Your task to perform on an android device: turn off location Image 0: 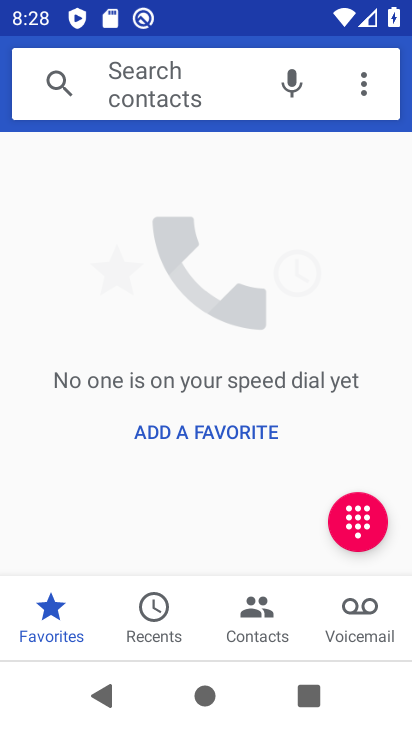
Step 0: press home button
Your task to perform on an android device: turn off location Image 1: 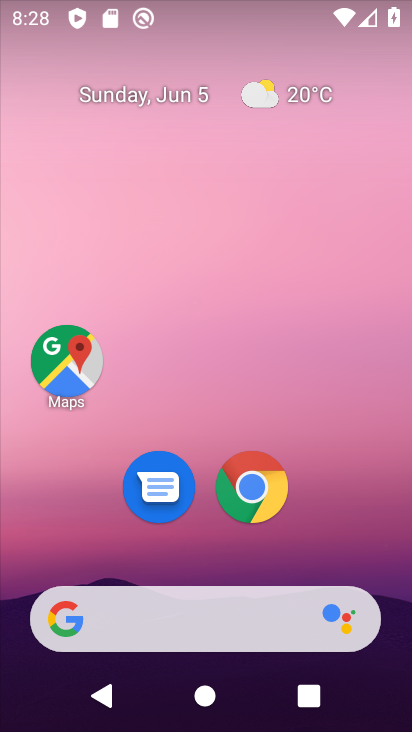
Step 1: drag from (264, 532) to (261, 146)
Your task to perform on an android device: turn off location Image 2: 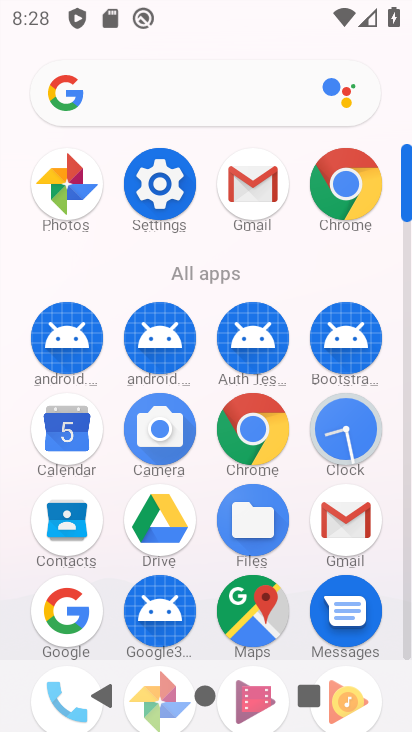
Step 2: click (150, 169)
Your task to perform on an android device: turn off location Image 3: 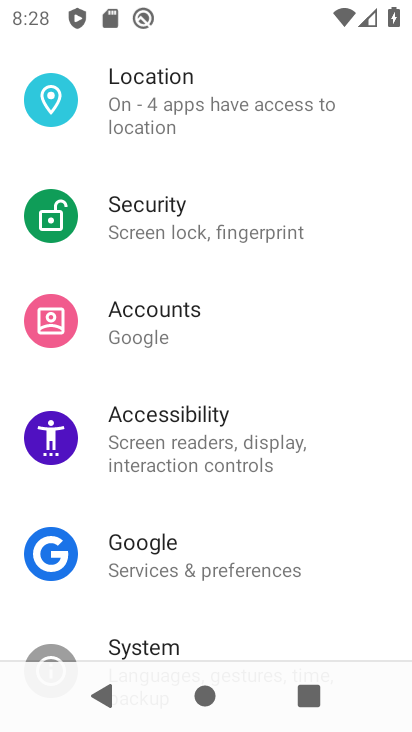
Step 3: drag from (241, 576) to (253, 529)
Your task to perform on an android device: turn off location Image 4: 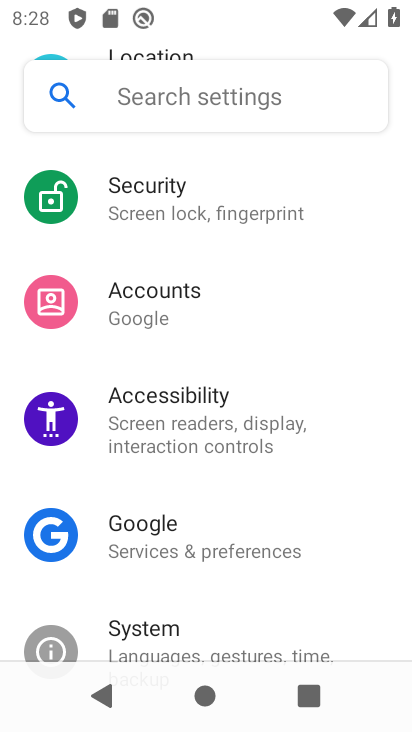
Step 4: drag from (191, 260) to (186, 613)
Your task to perform on an android device: turn off location Image 5: 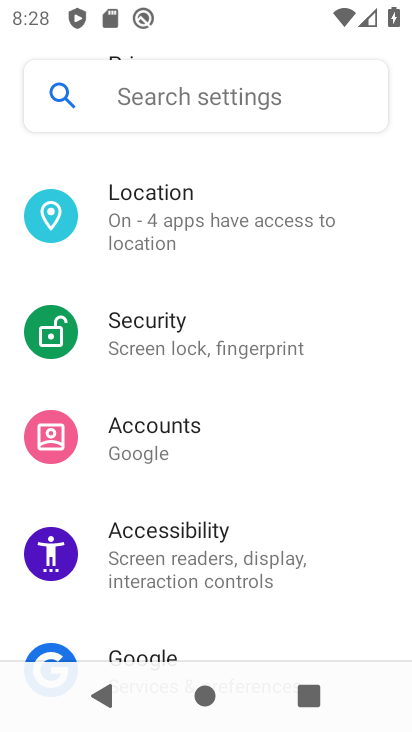
Step 5: drag from (202, 518) to (228, 490)
Your task to perform on an android device: turn off location Image 6: 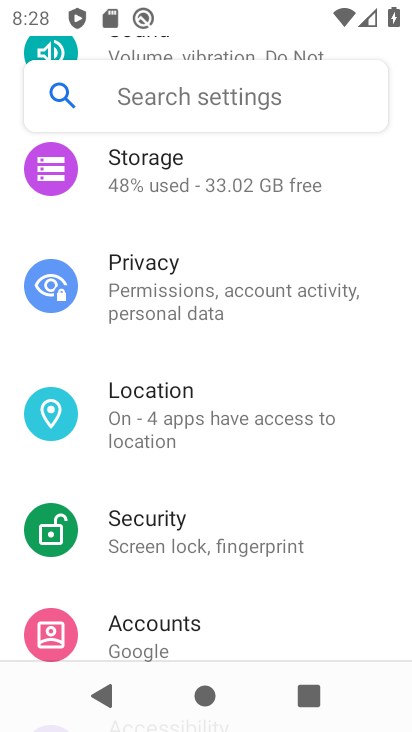
Step 6: click (176, 203)
Your task to perform on an android device: turn off location Image 7: 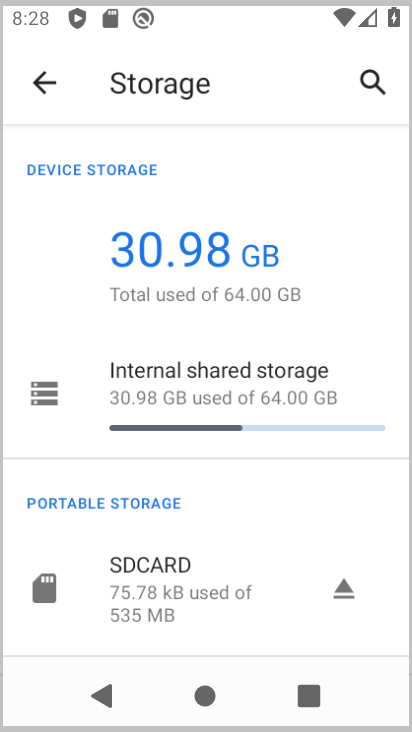
Step 7: click (176, 203)
Your task to perform on an android device: turn off location Image 8: 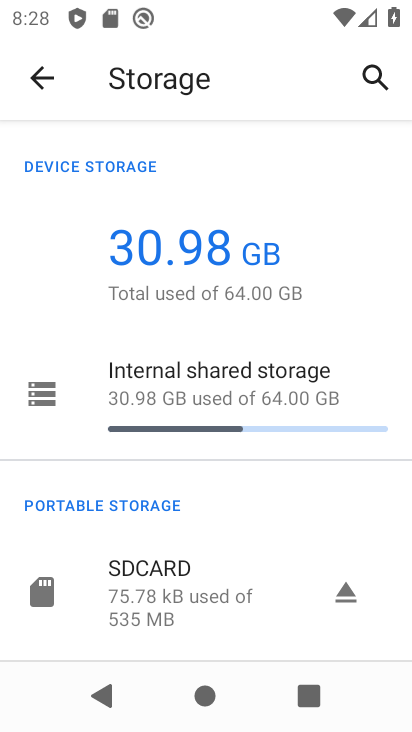
Step 8: click (61, 76)
Your task to perform on an android device: turn off location Image 9: 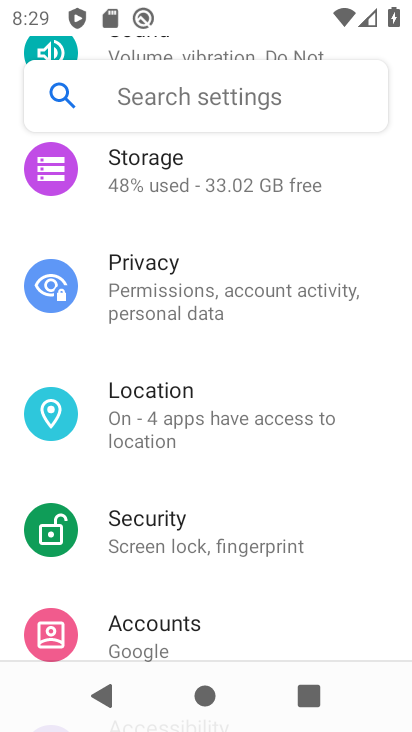
Step 9: click (157, 389)
Your task to perform on an android device: turn off location Image 10: 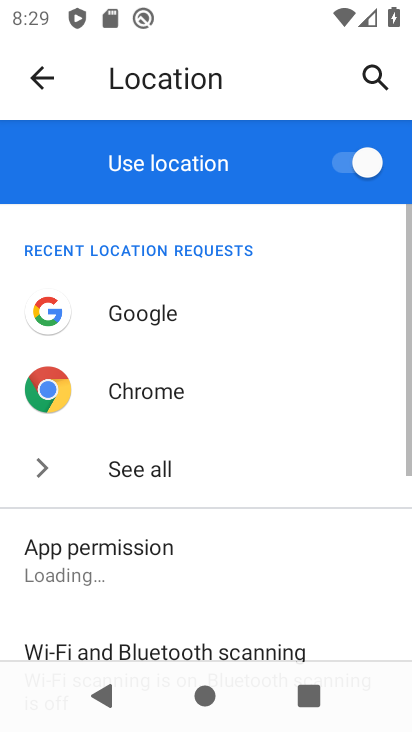
Step 10: click (340, 175)
Your task to perform on an android device: turn off location Image 11: 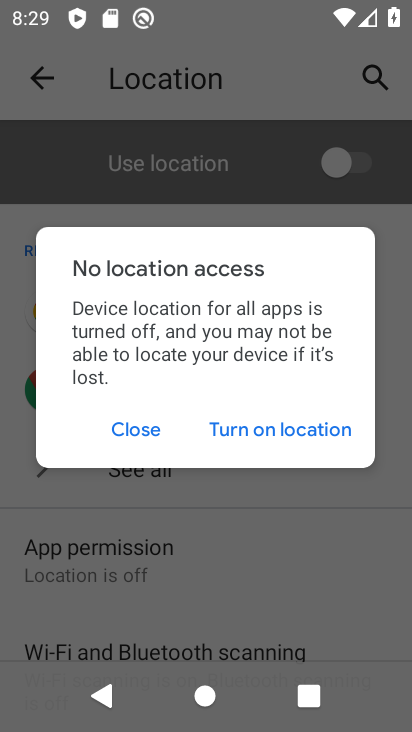
Step 11: click (141, 437)
Your task to perform on an android device: turn off location Image 12: 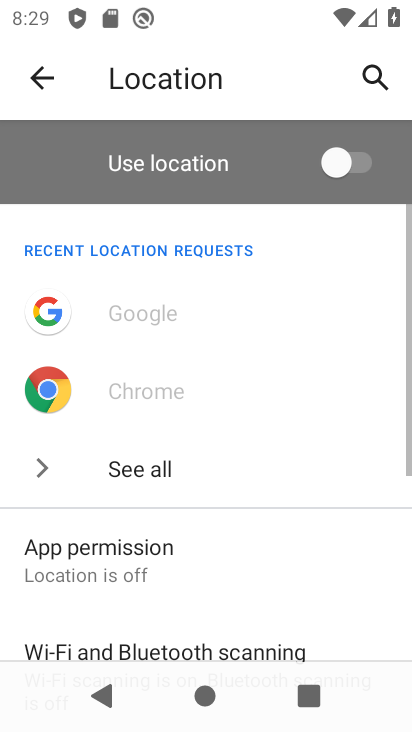
Step 12: task complete